Your task to perform on an android device: see sites visited before in the chrome app Image 0: 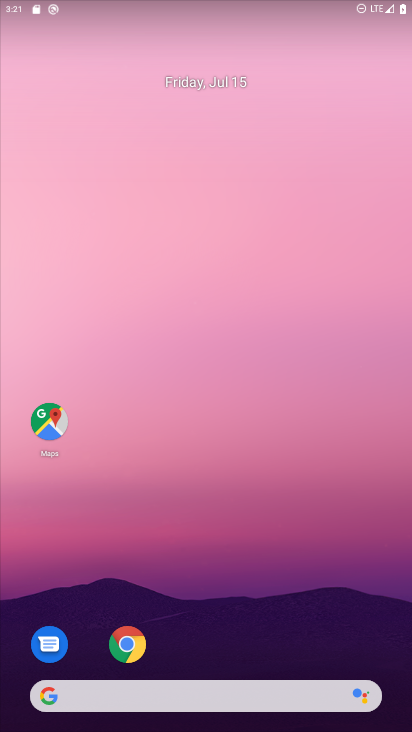
Step 0: click (127, 633)
Your task to perform on an android device: see sites visited before in the chrome app Image 1: 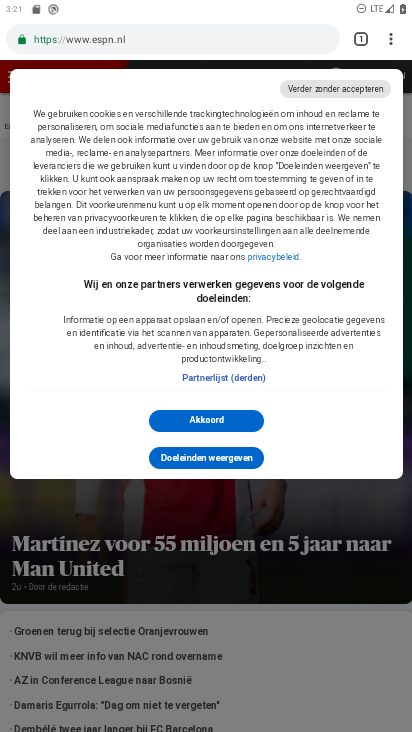
Step 1: click (363, 37)
Your task to perform on an android device: see sites visited before in the chrome app Image 2: 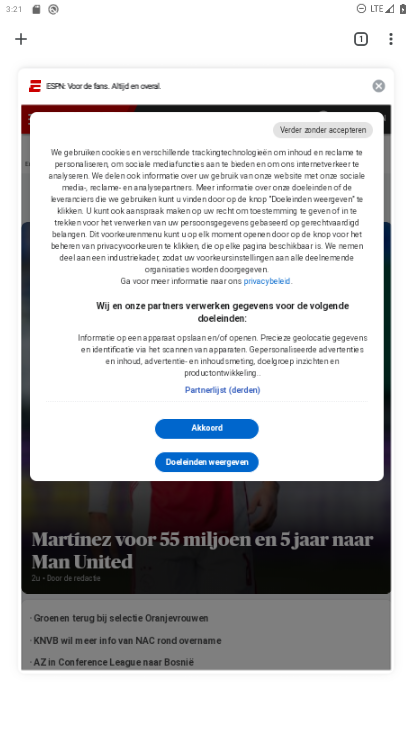
Step 2: click (374, 82)
Your task to perform on an android device: see sites visited before in the chrome app Image 3: 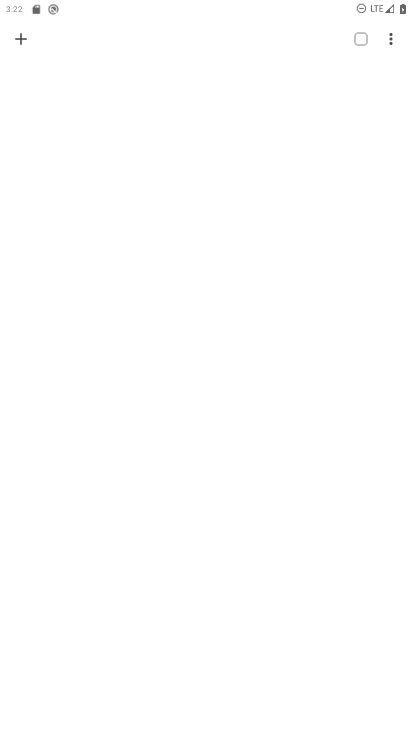
Step 3: press home button
Your task to perform on an android device: see sites visited before in the chrome app Image 4: 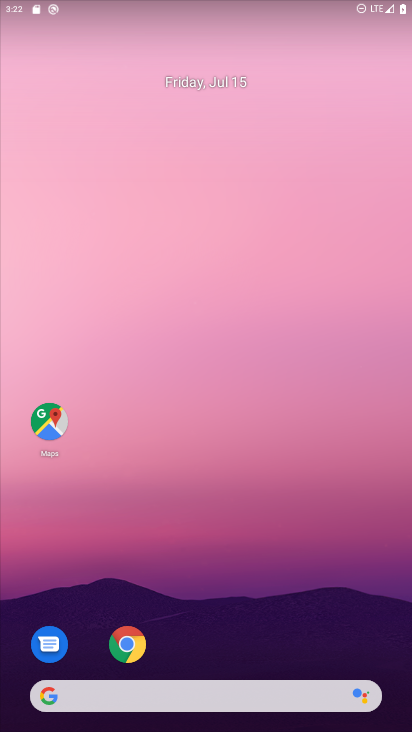
Step 4: click (117, 635)
Your task to perform on an android device: see sites visited before in the chrome app Image 5: 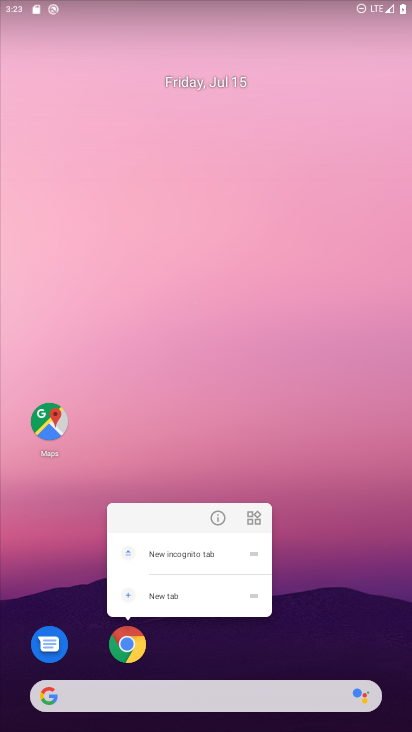
Step 5: click (126, 639)
Your task to perform on an android device: see sites visited before in the chrome app Image 6: 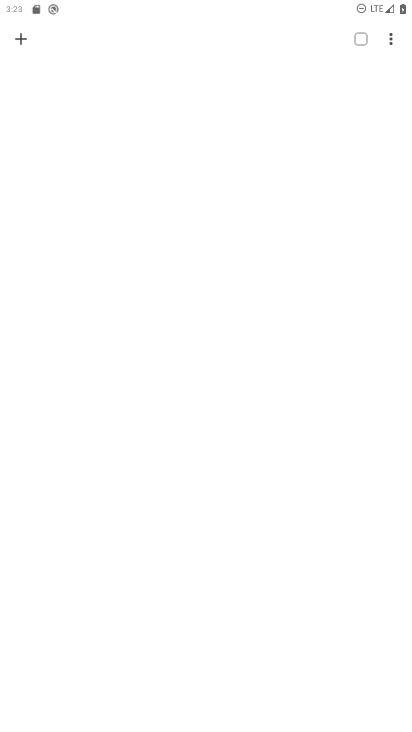
Step 6: click (28, 40)
Your task to perform on an android device: see sites visited before in the chrome app Image 7: 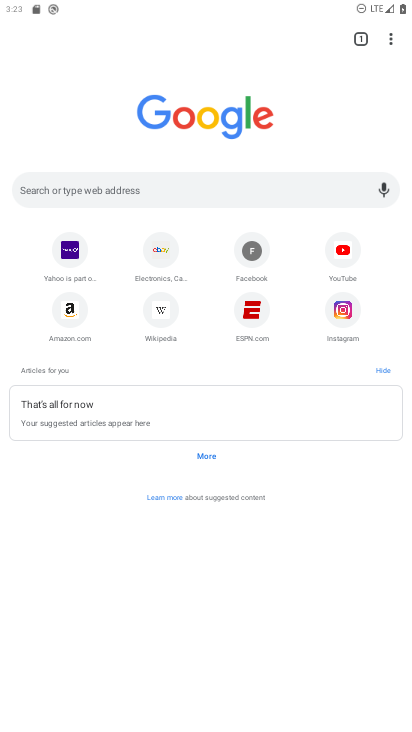
Step 7: task complete